Your task to perform on an android device: What is the recent news? Image 0: 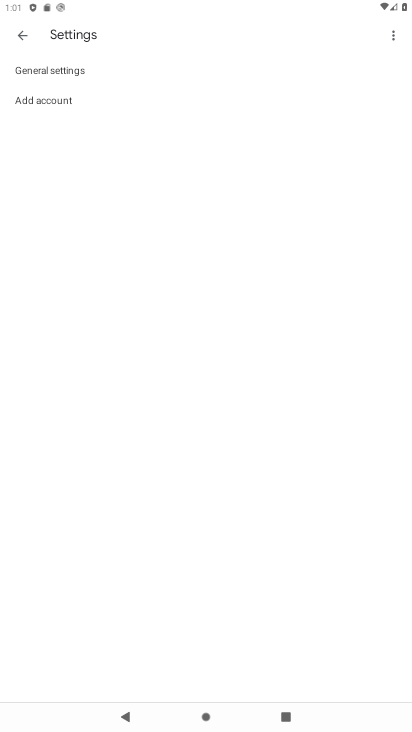
Step 0: press home button
Your task to perform on an android device: What is the recent news? Image 1: 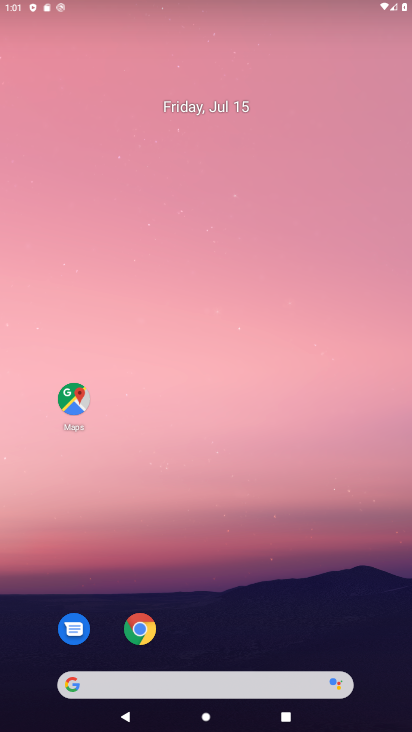
Step 1: drag from (226, 701) to (226, 205)
Your task to perform on an android device: What is the recent news? Image 2: 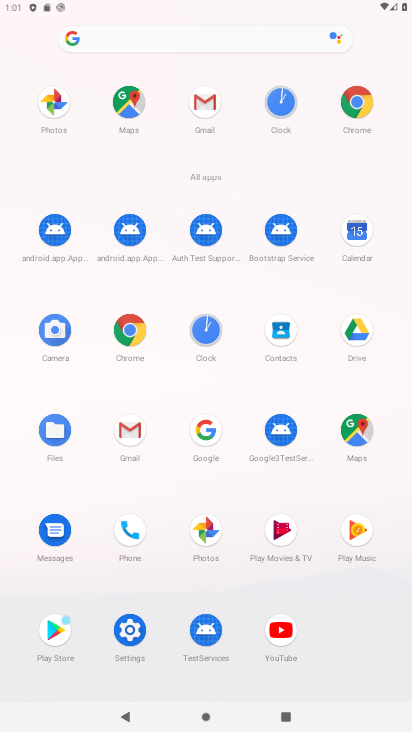
Step 2: click (348, 101)
Your task to perform on an android device: What is the recent news? Image 3: 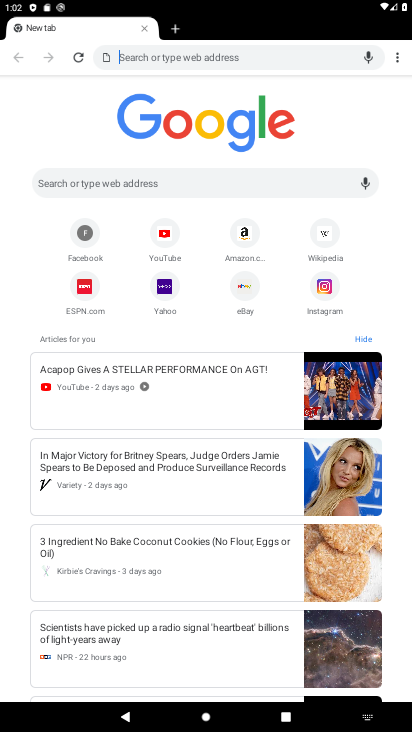
Step 3: click (195, 179)
Your task to perform on an android device: What is the recent news? Image 4: 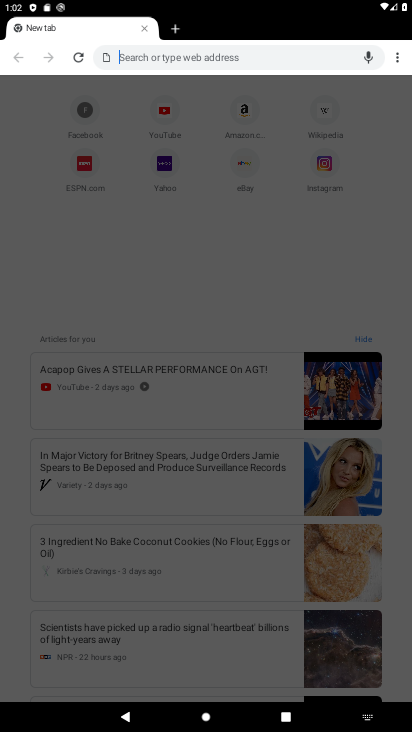
Step 4: type "What is the recent news "
Your task to perform on an android device: What is the recent news? Image 5: 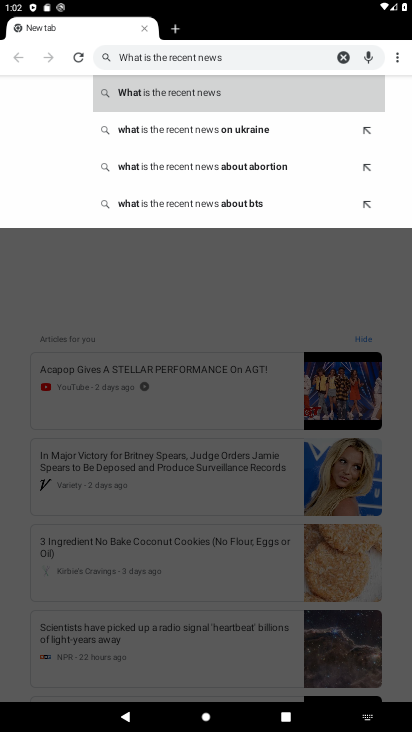
Step 5: click (224, 91)
Your task to perform on an android device: What is the recent news? Image 6: 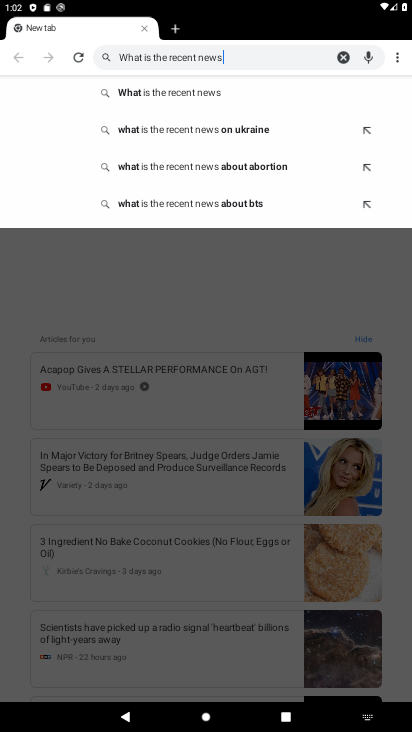
Step 6: click (224, 91)
Your task to perform on an android device: What is the recent news? Image 7: 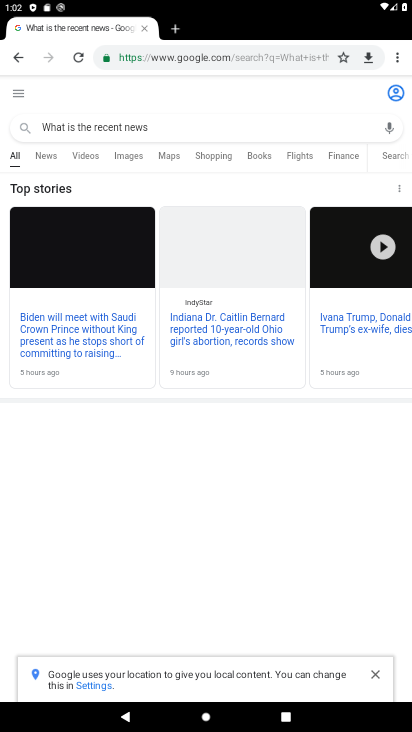
Step 7: task complete